Your task to perform on an android device: Show me productivity apps on the Play Store Image 0: 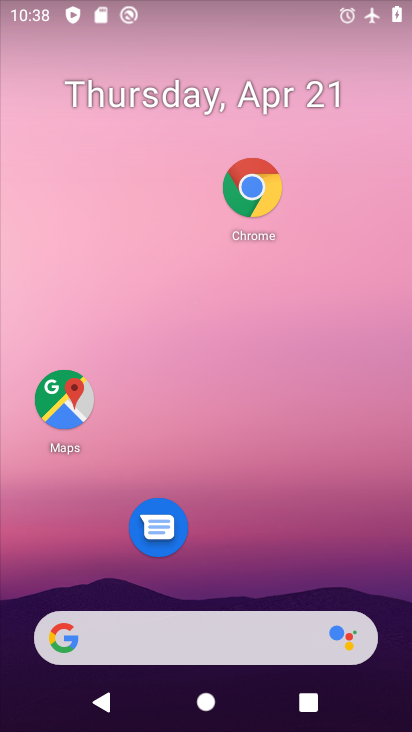
Step 0: drag from (292, 546) to (340, 159)
Your task to perform on an android device: Show me productivity apps on the Play Store Image 1: 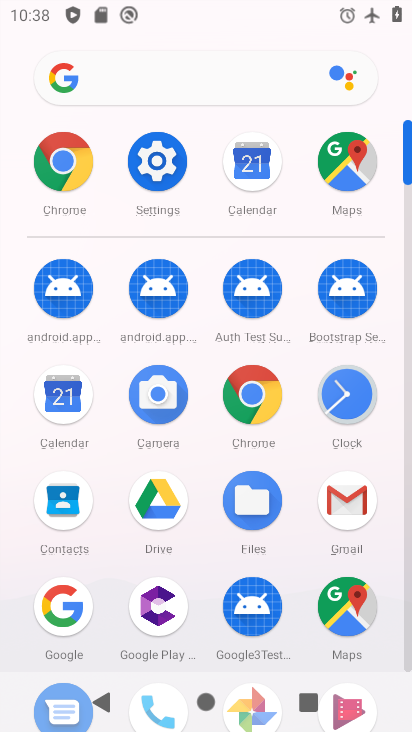
Step 1: drag from (243, 581) to (307, 279)
Your task to perform on an android device: Show me productivity apps on the Play Store Image 2: 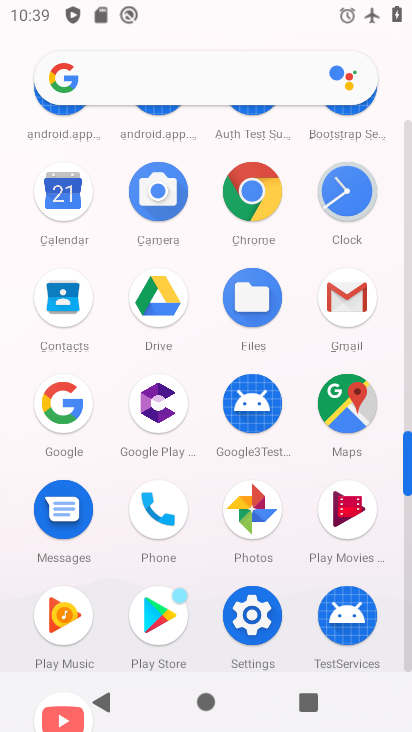
Step 2: click (176, 623)
Your task to perform on an android device: Show me productivity apps on the Play Store Image 3: 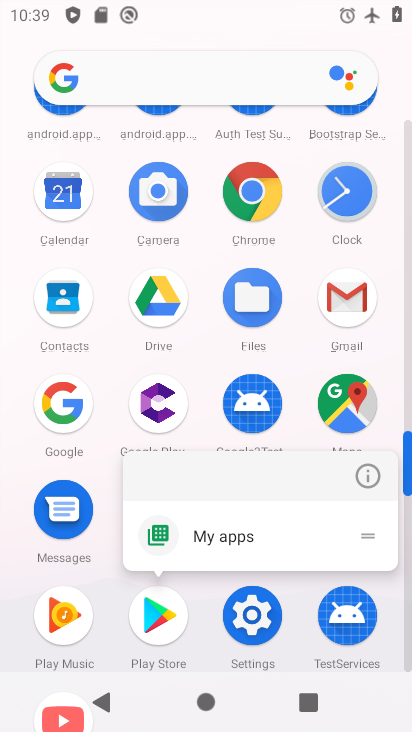
Step 3: click (160, 624)
Your task to perform on an android device: Show me productivity apps on the Play Store Image 4: 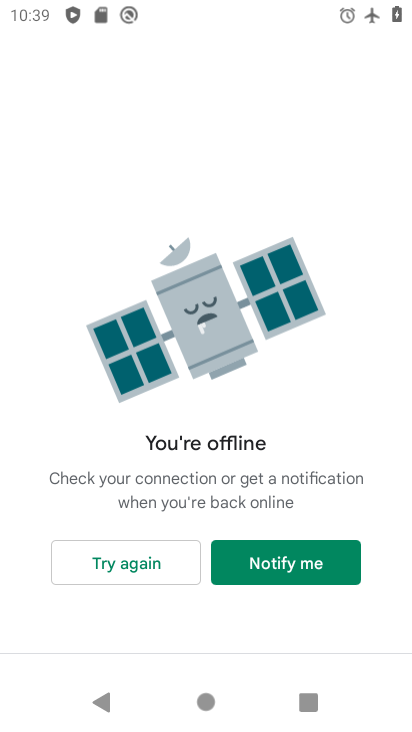
Step 4: task complete